Your task to perform on an android device: Open battery settings Image 0: 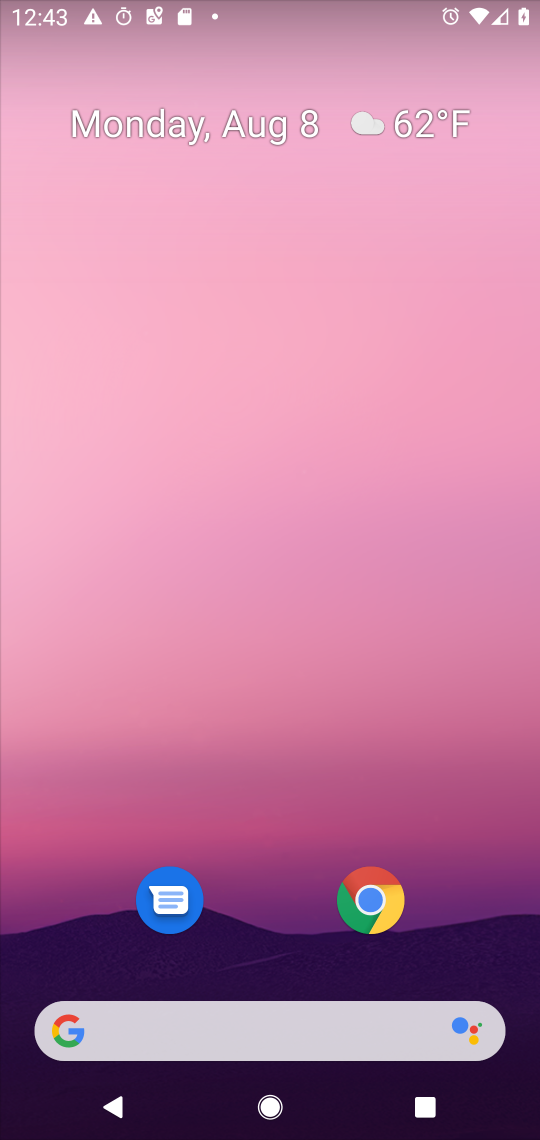
Step 0: press home button
Your task to perform on an android device: Open battery settings Image 1: 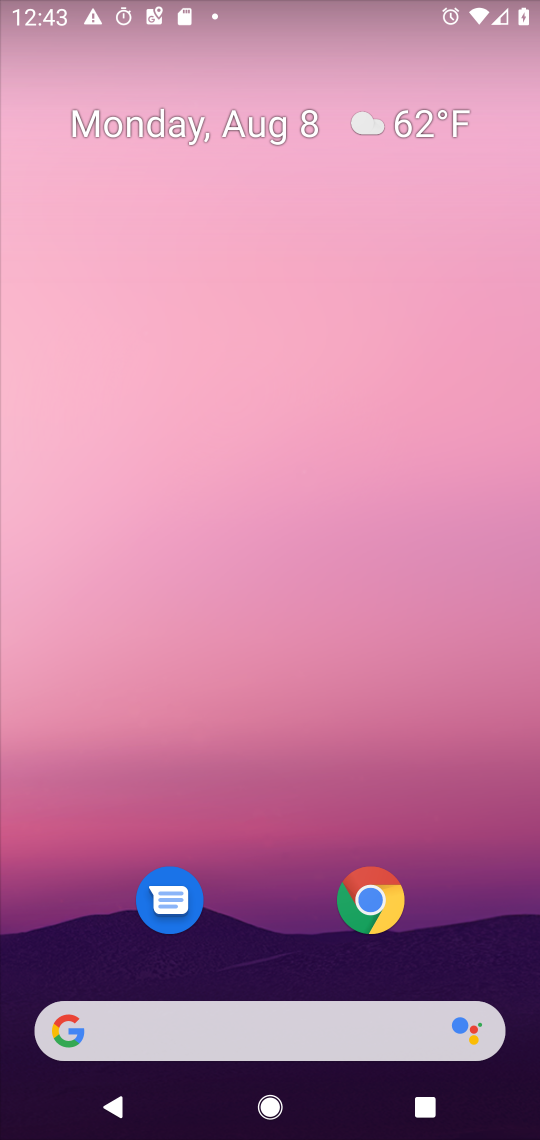
Step 1: drag from (286, 964) to (358, 7)
Your task to perform on an android device: Open battery settings Image 2: 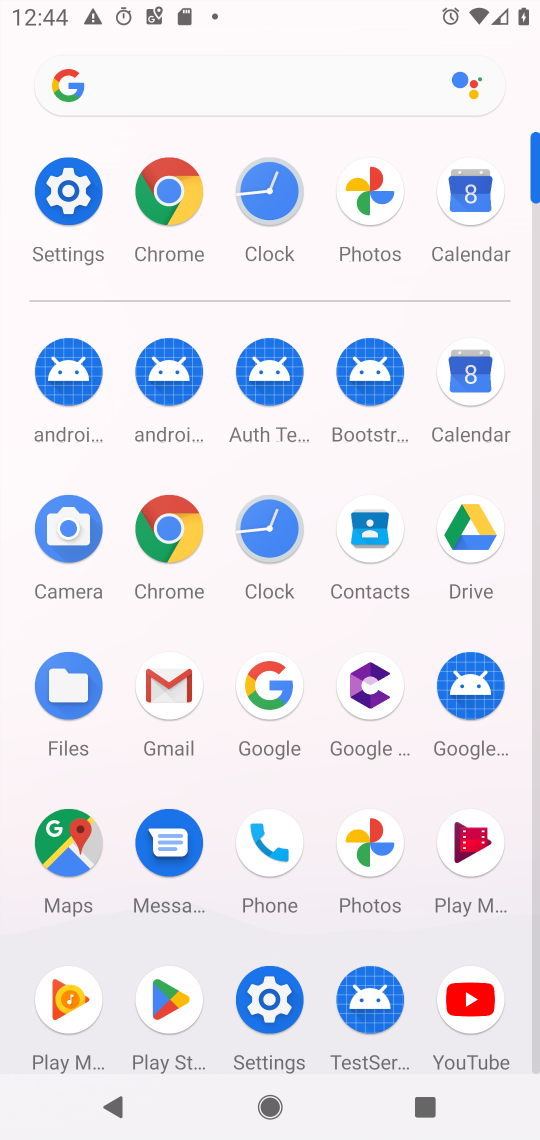
Step 2: click (270, 987)
Your task to perform on an android device: Open battery settings Image 3: 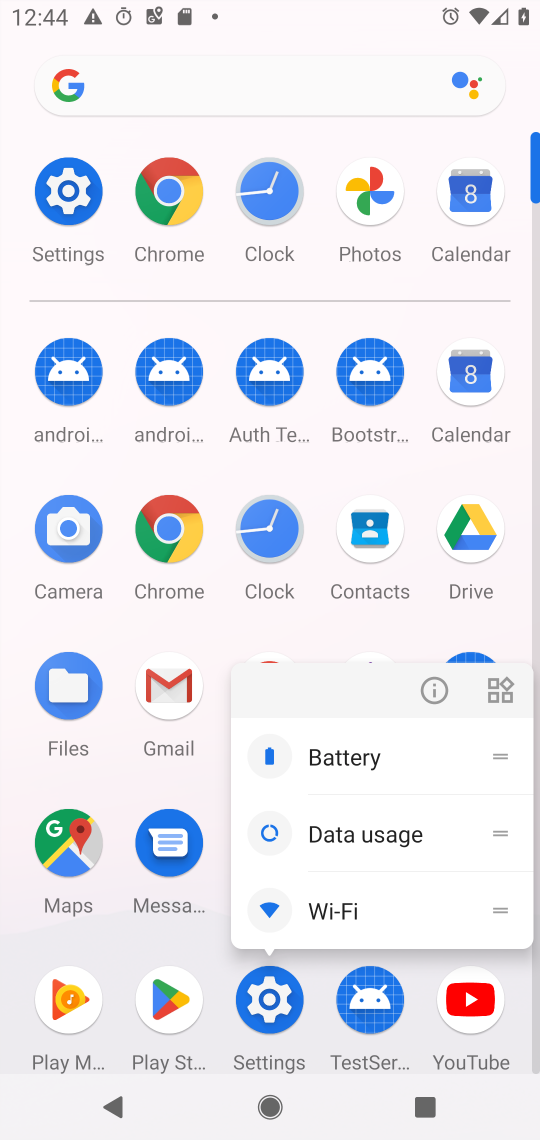
Step 3: click (265, 997)
Your task to perform on an android device: Open battery settings Image 4: 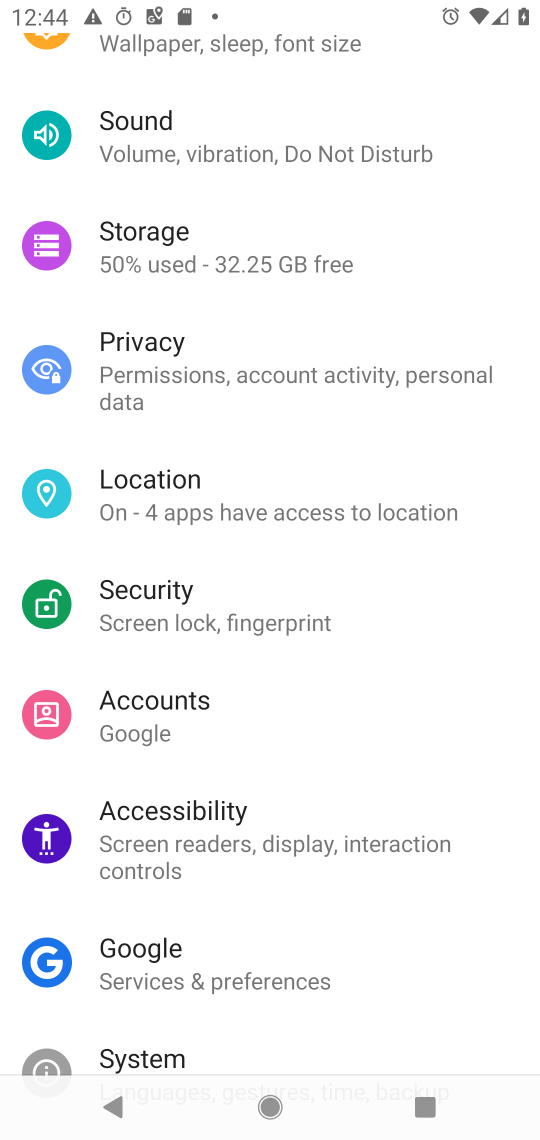
Step 4: drag from (198, 171) to (193, 937)
Your task to perform on an android device: Open battery settings Image 5: 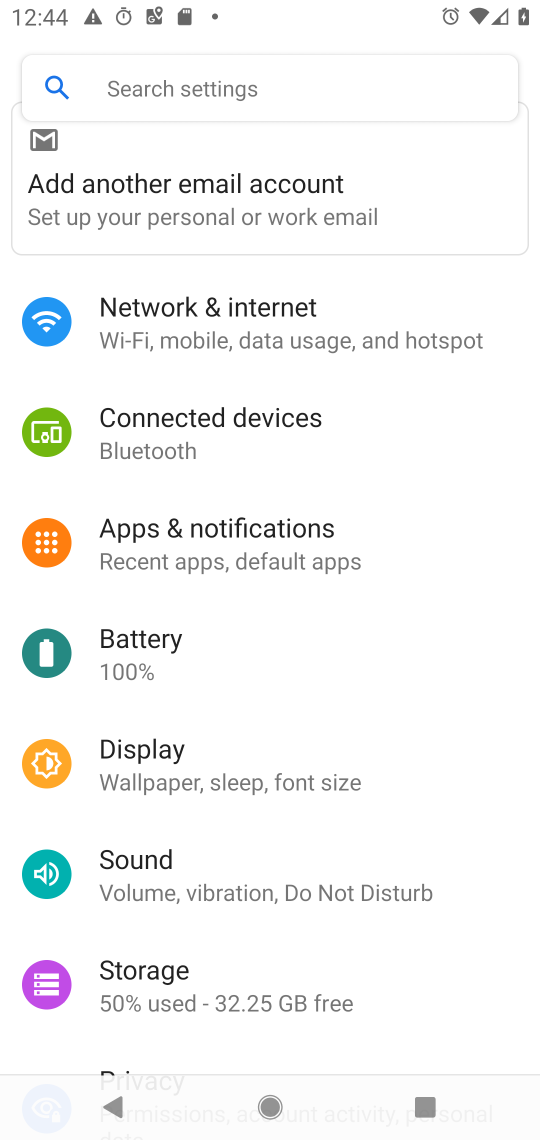
Step 5: click (194, 608)
Your task to perform on an android device: Open battery settings Image 6: 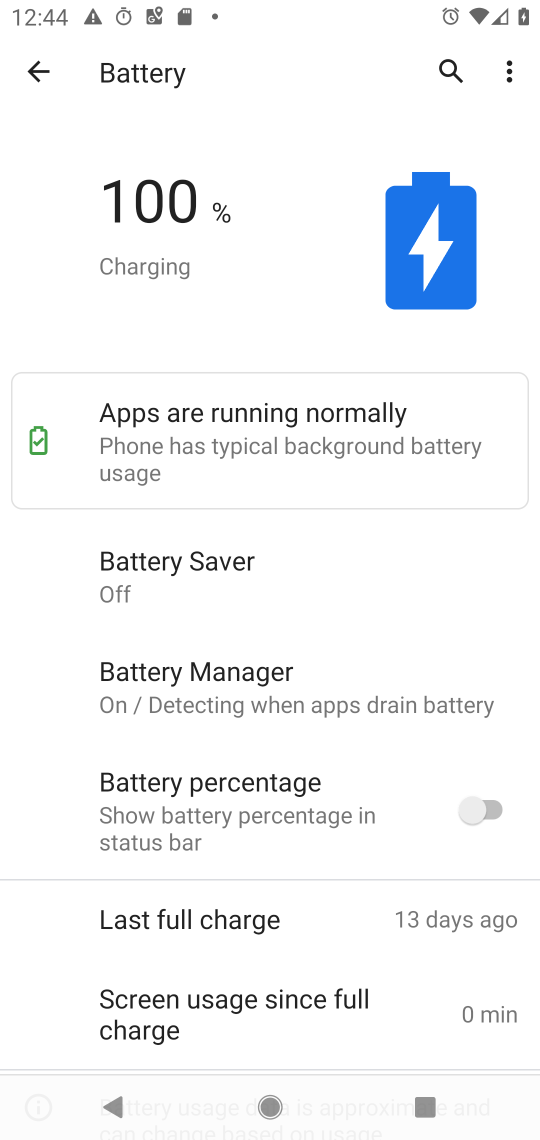
Step 6: task complete